Your task to perform on an android device: open chrome and create a bookmark for the current page Image 0: 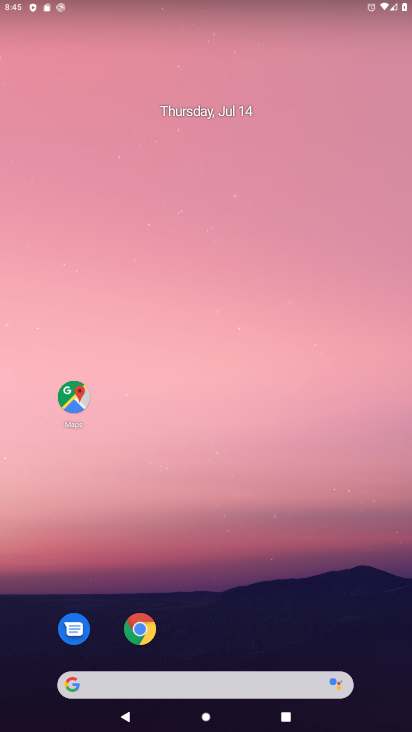
Step 0: click (139, 632)
Your task to perform on an android device: open chrome and create a bookmark for the current page Image 1: 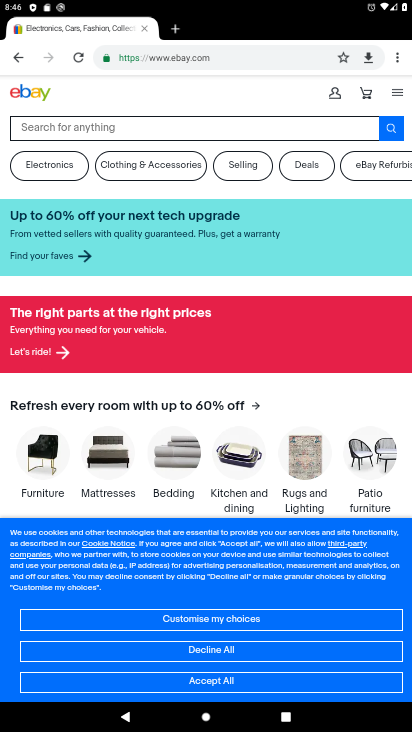
Step 1: click (398, 54)
Your task to perform on an android device: open chrome and create a bookmark for the current page Image 2: 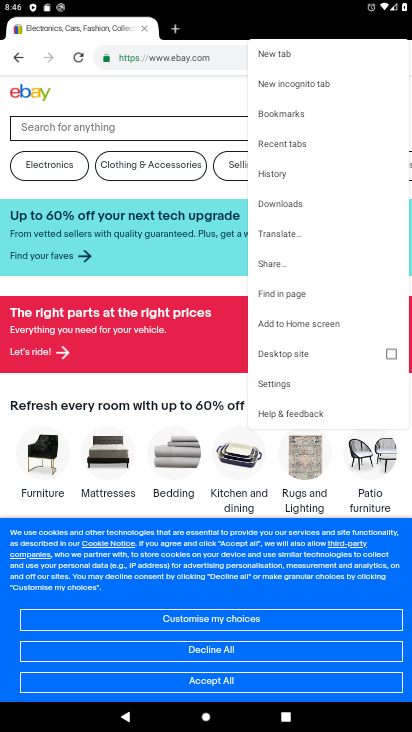
Step 2: click (207, 87)
Your task to perform on an android device: open chrome and create a bookmark for the current page Image 3: 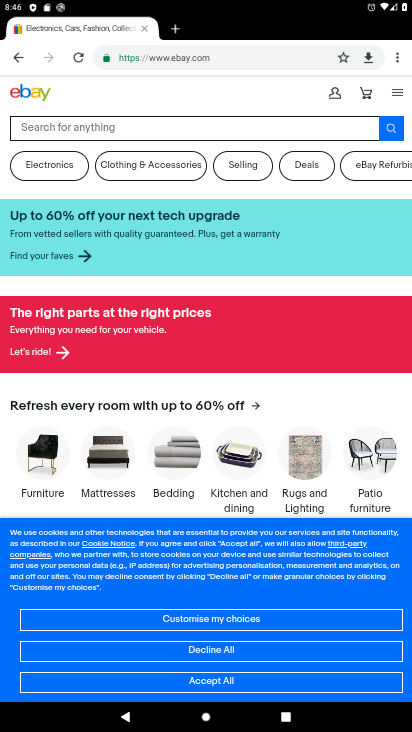
Step 3: click (342, 52)
Your task to perform on an android device: open chrome and create a bookmark for the current page Image 4: 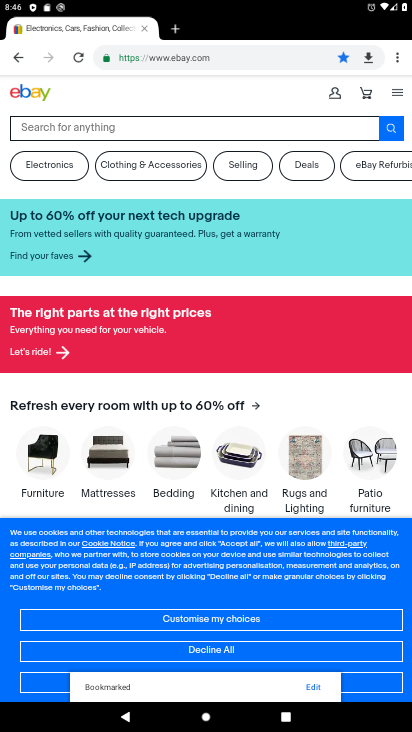
Step 4: task complete